Your task to perform on an android device: open sync settings in chrome Image 0: 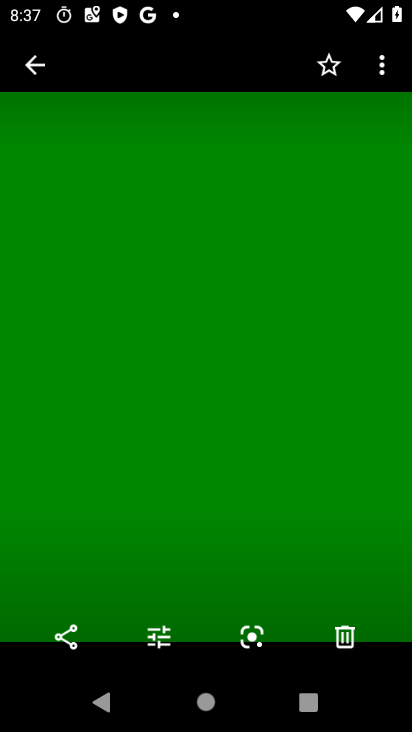
Step 0: press home button
Your task to perform on an android device: open sync settings in chrome Image 1: 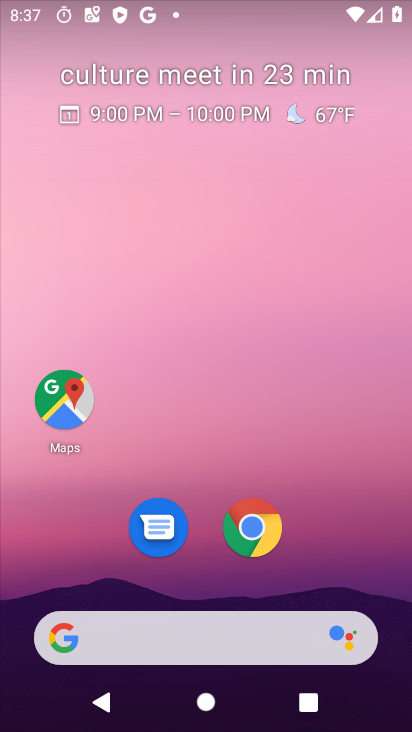
Step 1: click (255, 533)
Your task to perform on an android device: open sync settings in chrome Image 2: 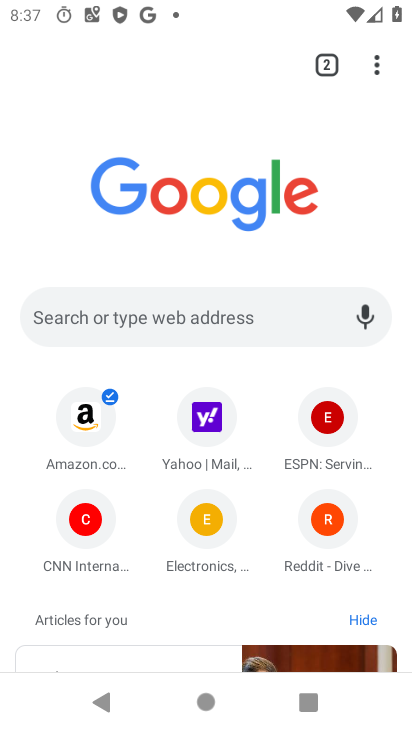
Step 2: click (376, 69)
Your task to perform on an android device: open sync settings in chrome Image 3: 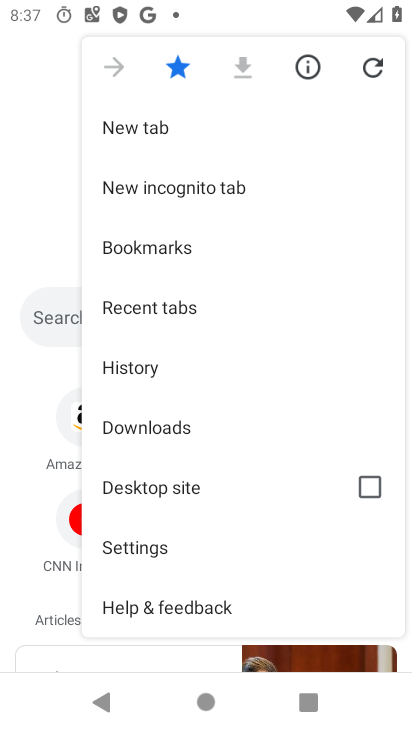
Step 3: click (120, 545)
Your task to perform on an android device: open sync settings in chrome Image 4: 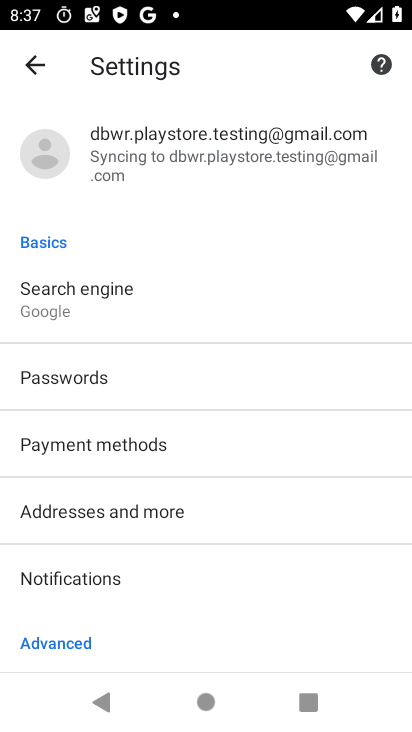
Step 4: drag from (130, 643) to (130, 217)
Your task to perform on an android device: open sync settings in chrome Image 5: 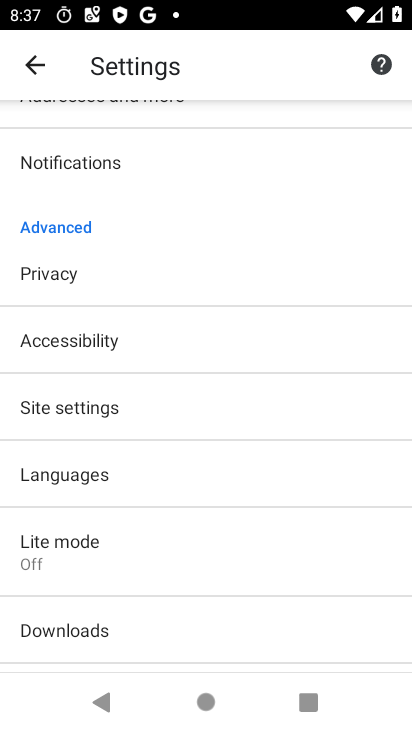
Step 5: click (99, 405)
Your task to perform on an android device: open sync settings in chrome Image 6: 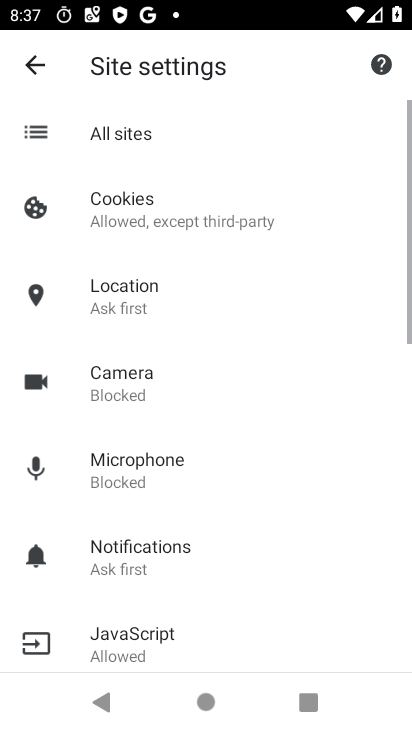
Step 6: drag from (138, 630) to (148, 349)
Your task to perform on an android device: open sync settings in chrome Image 7: 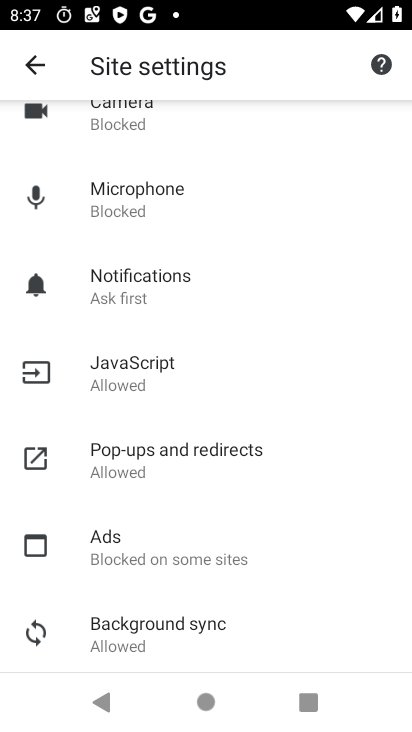
Step 7: drag from (250, 646) to (253, 369)
Your task to perform on an android device: open sync settings in chrome Image 8: 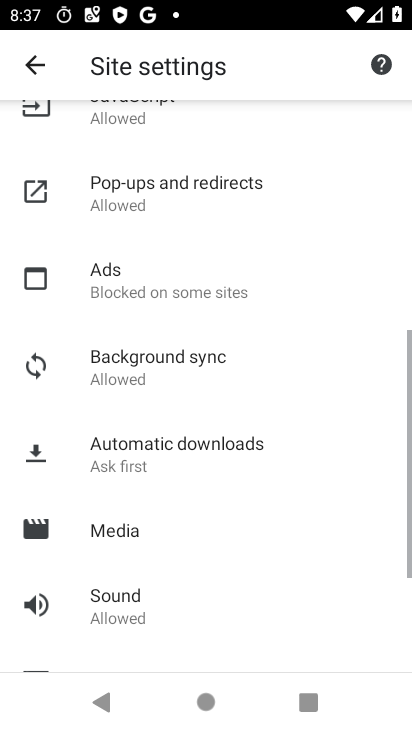
Step 8: drag from (161, 619) to (170, 321)
Your task to perform on an android device: open sync settings in chrome Image 9: 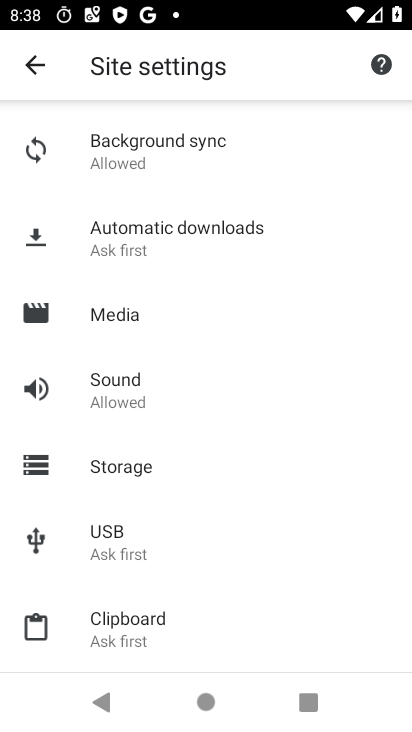
Step 9: click (124, 152)
Your task to perform on an android device: open sync settings in chrome Image 10: 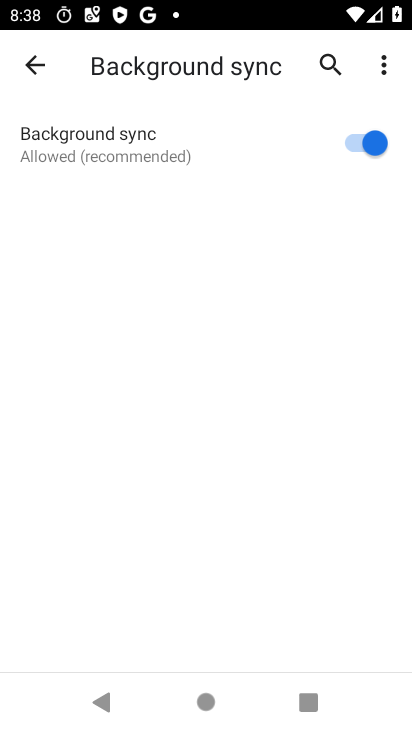
Step 10: task complete